Your task to perform on an android device: change the clock style Image 0: 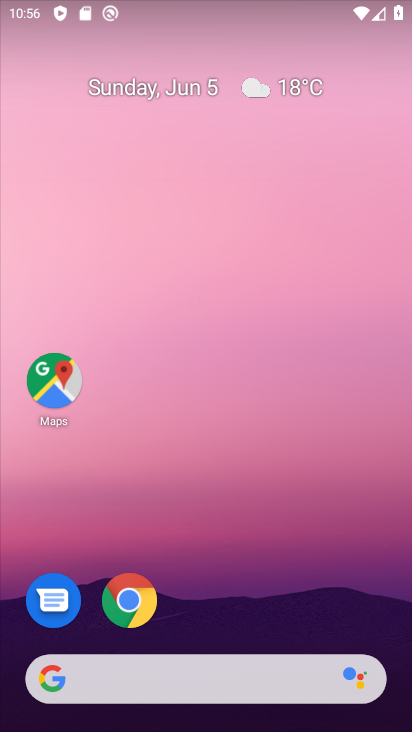
Step 0: drag from (182, 527) to (283, 138)
Your task to perform on an android device: change the clock style Image 1: 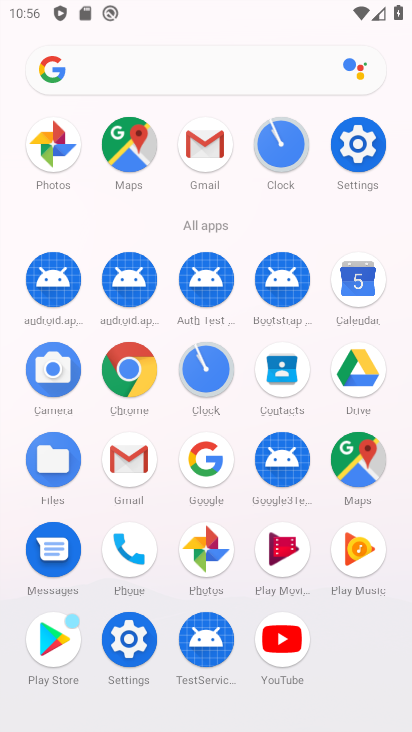
Step 1: click (200, 381)
Your task to perform on an android device: change the clock style Image 2: 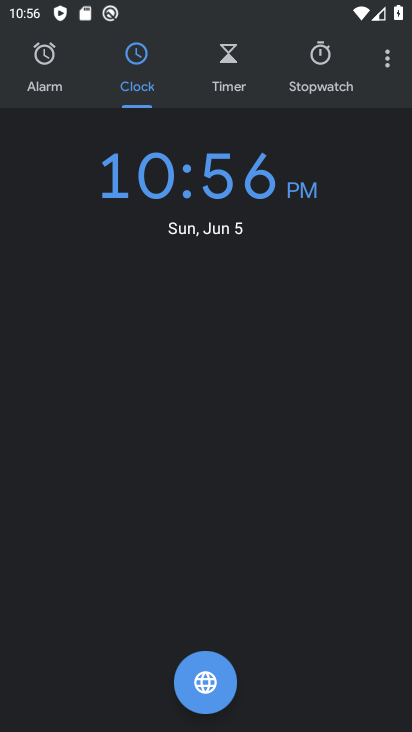
Step 2: click (378, 52)
Your task to perform on an android device: change the clock style Image 3: 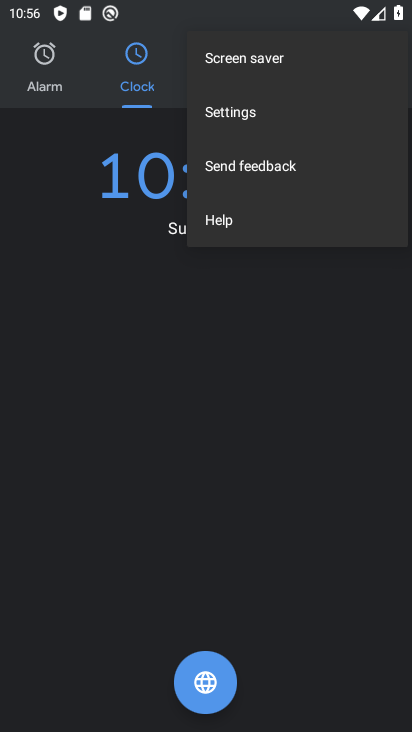
Step 3: click (340, 120)
Your task to perform on an android device: change the clock style Image 4: 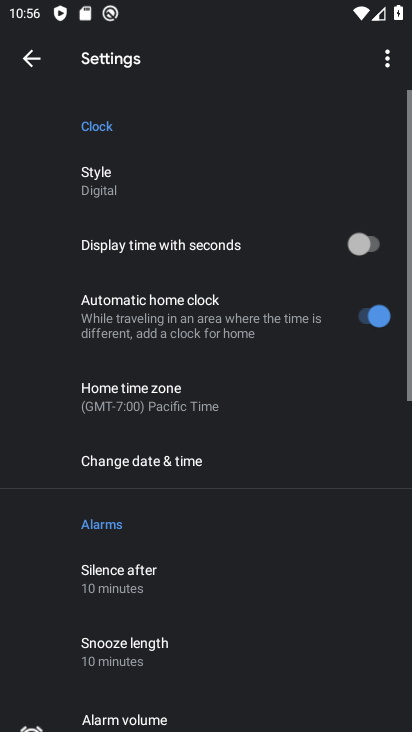
Step 4: click (245, 180)
Your task to perform on an android device: change the clock style Image 5: 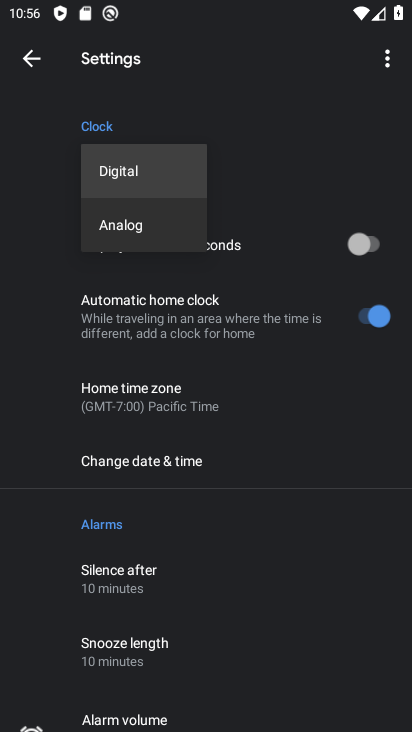
Step 5: click (165, 231)
Your task to perform on an android device: change the clock style Image 6: 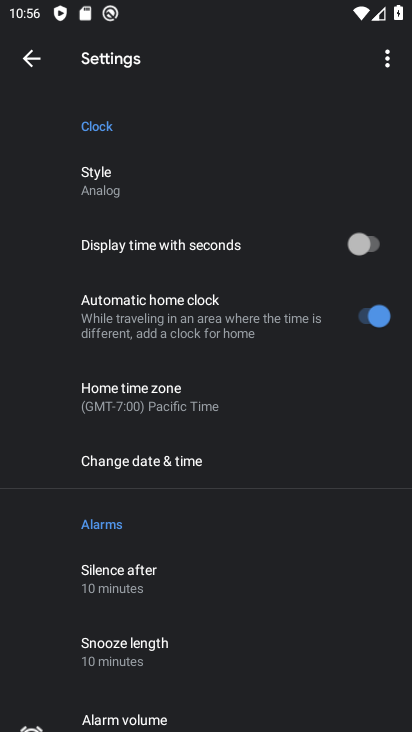
Step 6: task complete